Your task to perform on an android device: find snoozed emails in the gmail app Image 0: 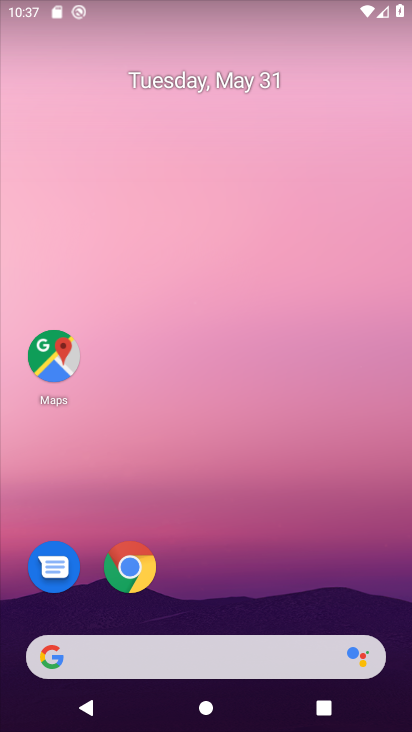
Step 0: drag from (214, 622) to (196, 67)
Your task to perform on an android device: find snoozed emails in the gmail app Image 1: 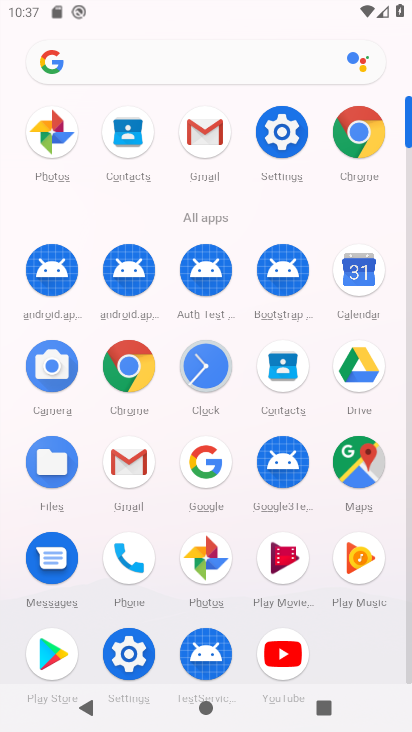
Step 1: click (124, 452)
Your task to perform on an android device: find snoozed emails in the gmail app Image 2: 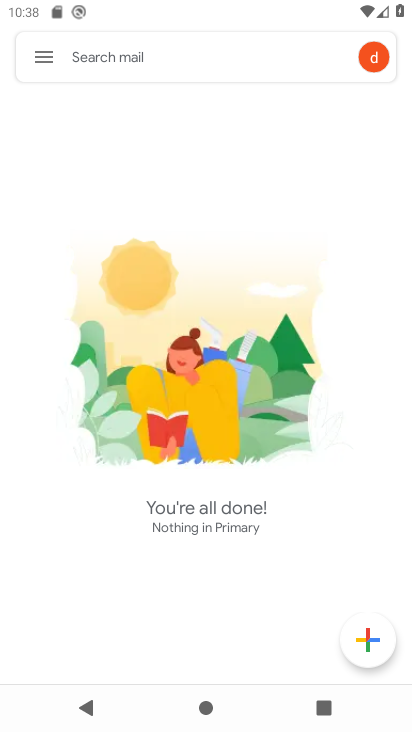
Step 2: click (50, 70)
Your task to perform on an android device: find snoozed emails in the gmail app Image 3: 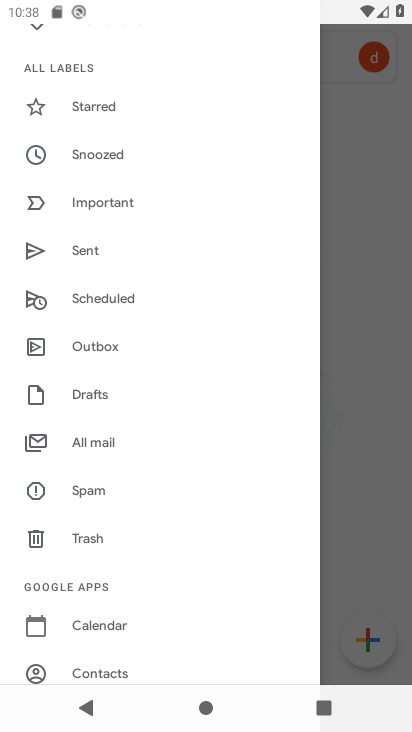
Step 3: click (116, 169)
Your task to perform on an android device: find snoozed emails in the gmail app Image 4: 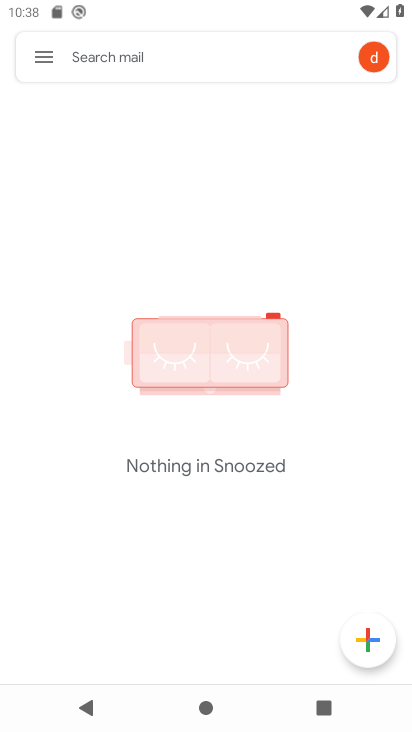
Step 4: task complete